Your task to perform on an android device: see creations saved in the google photos Image 0: 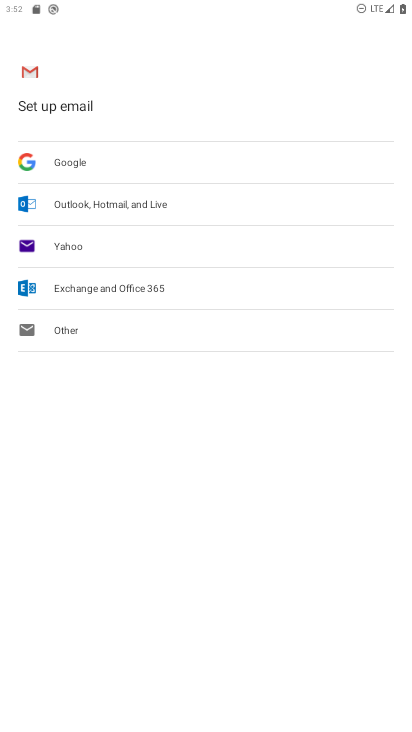
Step 0: press back button
Your task to perform on an android device: see creations saved in the google photos Image 1: 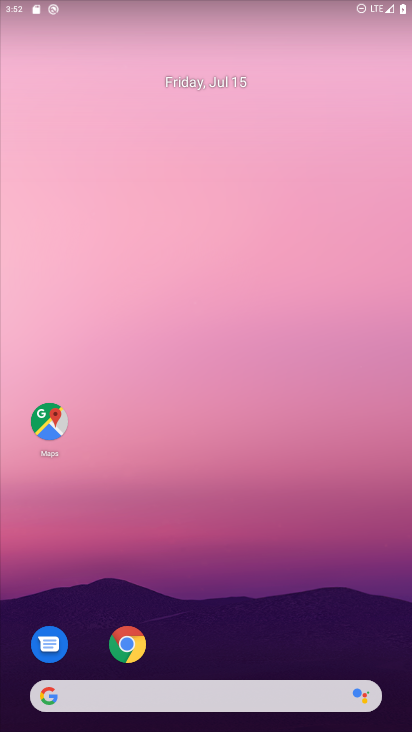
Step 1: drag from (37, 571) to (325, 147)
Your task to perform on an android device: see creations saved in the google photos Image 2: 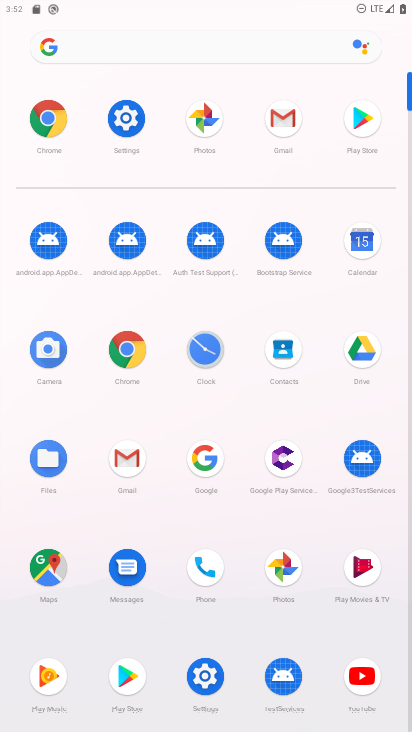
Step 2: click (271, 568)
Your task to perform on an android device: see creations saved in the google photos Image 3: 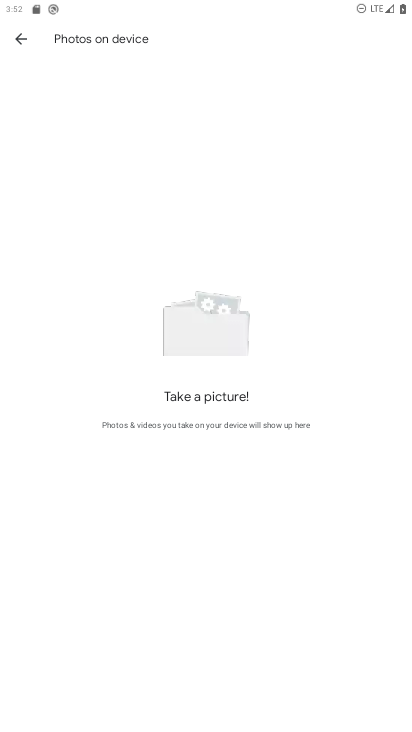
Step 3: click (21, 41)
Your task to perform on an android device: see creations saved in the google photos Image 4: 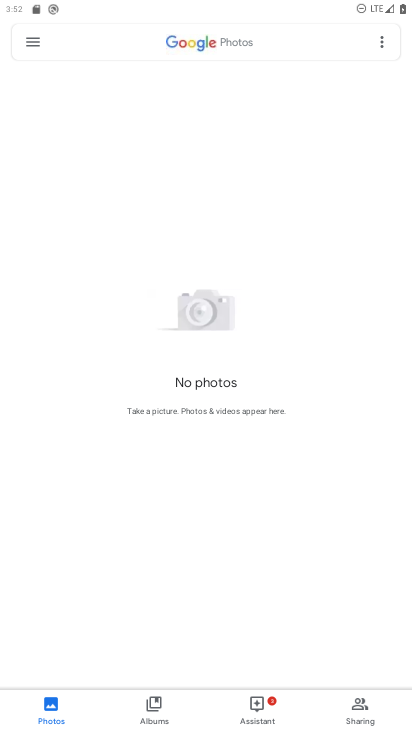
Step 4: click (92, 48)
Your task to perform on an android device: see creations saved in the google photos Image 5: 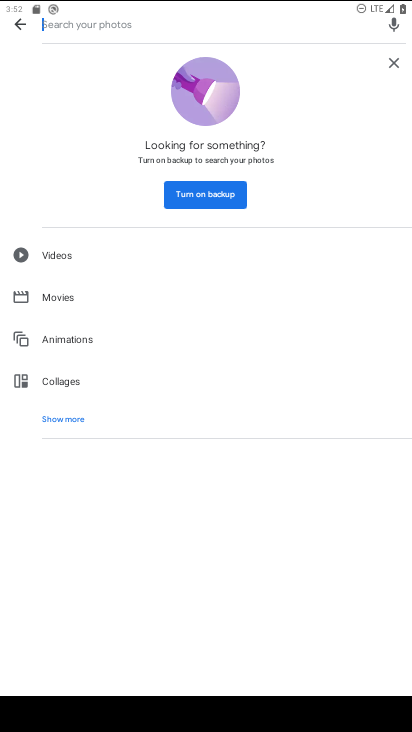
Step 5: click (81, 421)
Your task to perform on an android device: see creations saved in the google photos Image 6: 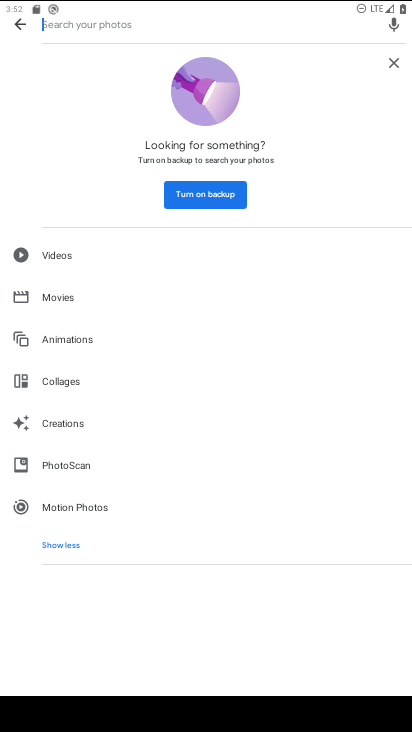
Step 6: click (81, 421)
Your task to perform on an android device: see creations saved in the google photos Image 7: 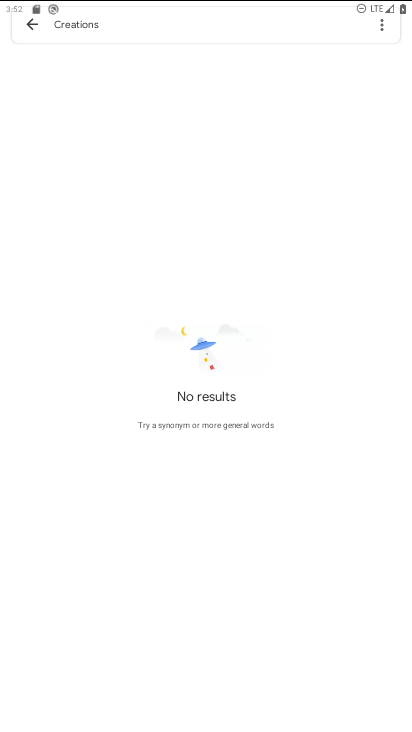
Step 7: task complete